Your task to perform on an android device: install app "Google Play Music" Image 0: 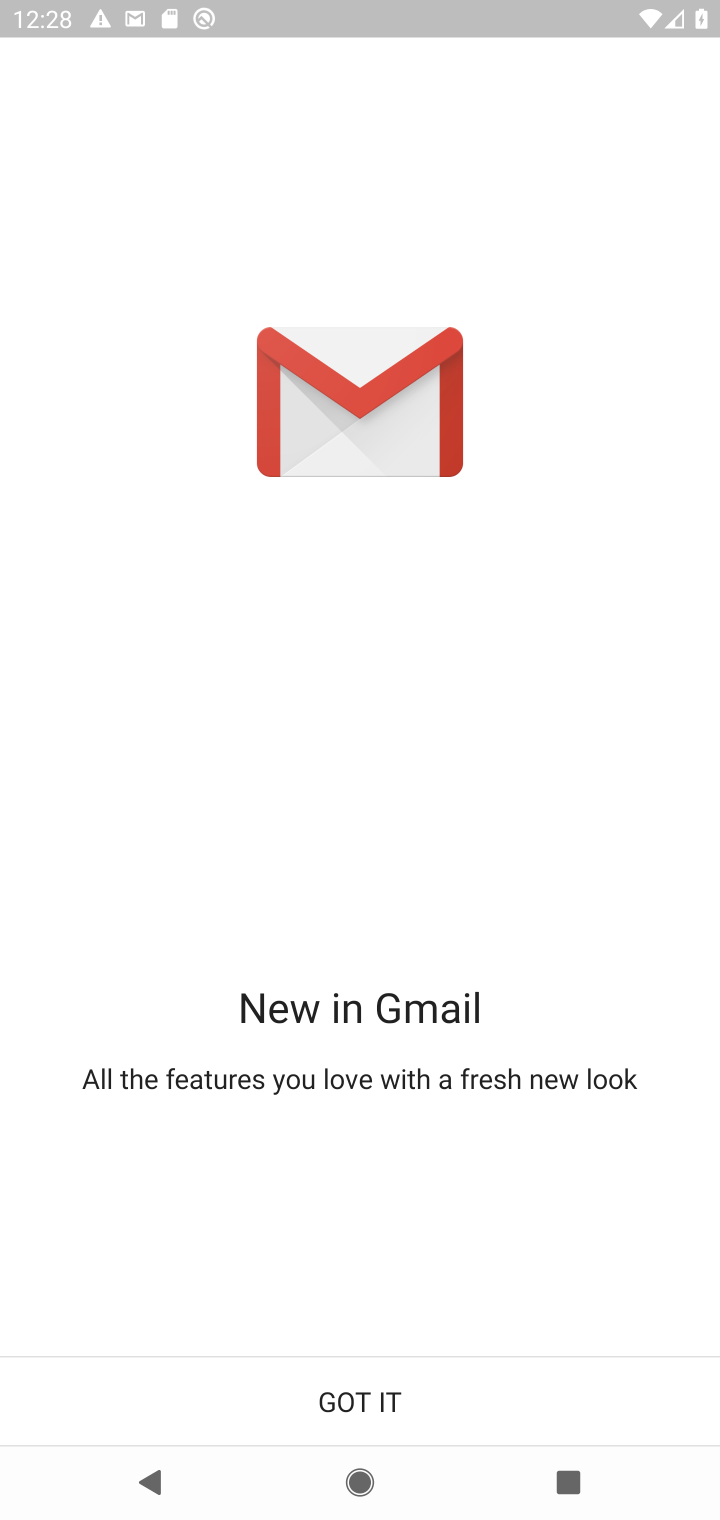
Step 0: press home button
Your task to perform on an android device: install app "Google Play Music" Image 1: 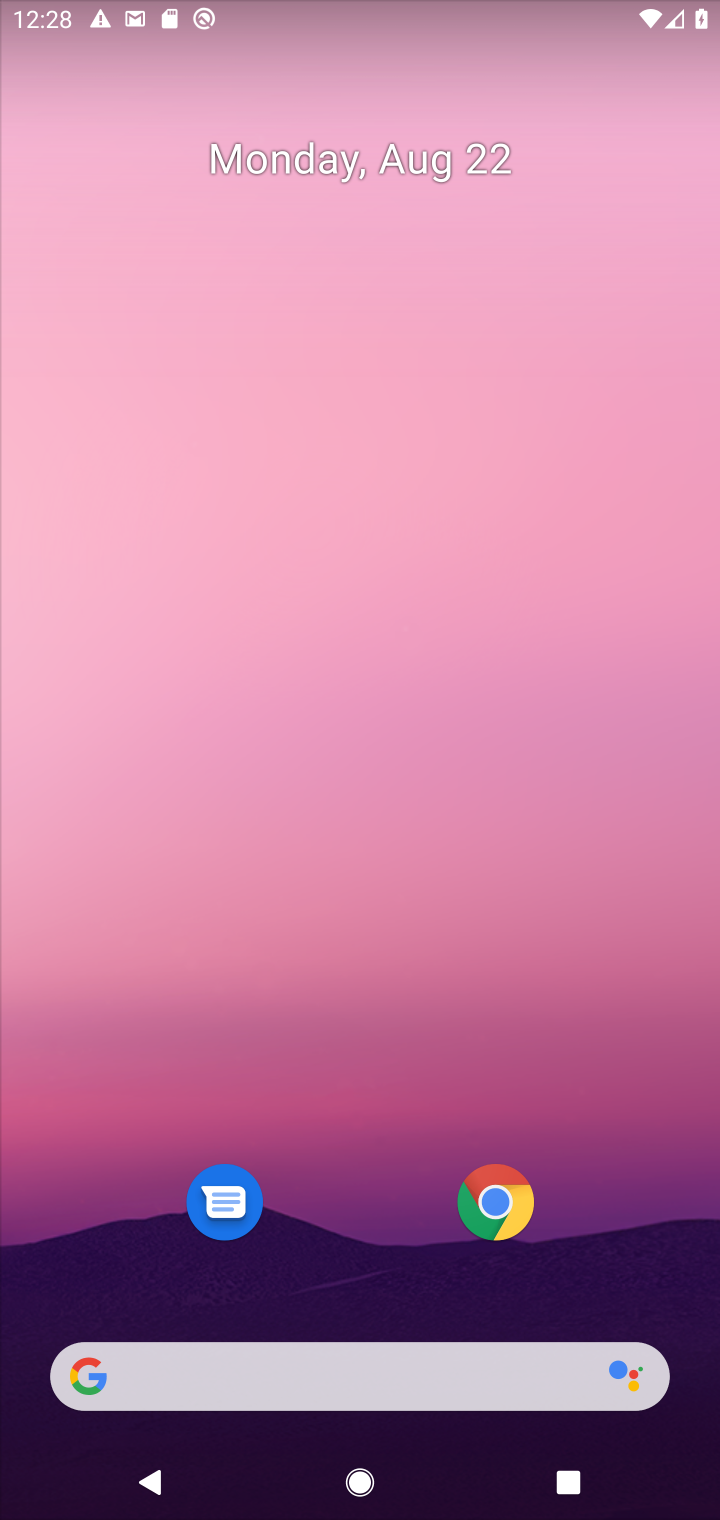
Step 1: drag from (318, 1200) to (318, 185)
Your task to perform on an android device: install app "Google Play Music" Image 2: 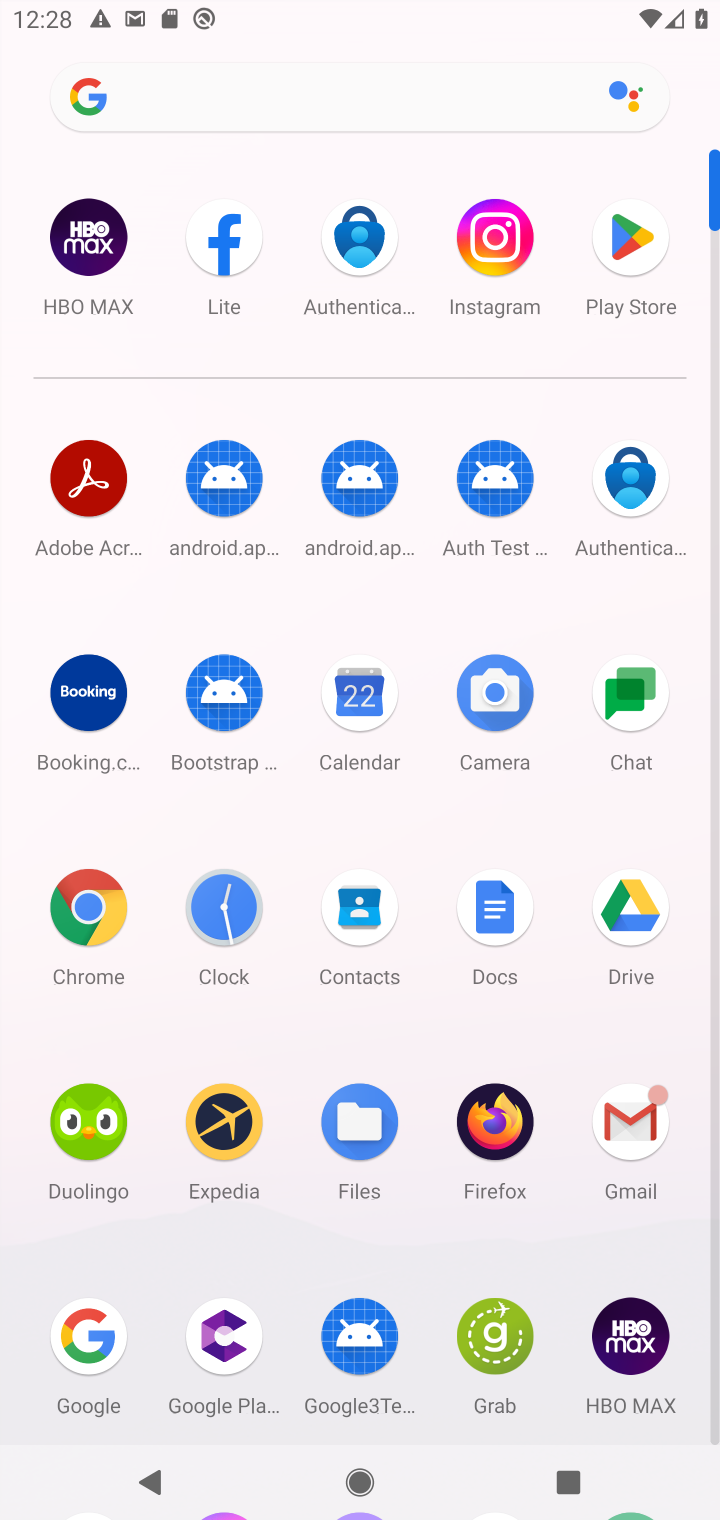
Step 2: click (630, 239)
Your task to perform on an android device: install app "Google Play Music" Image 3: 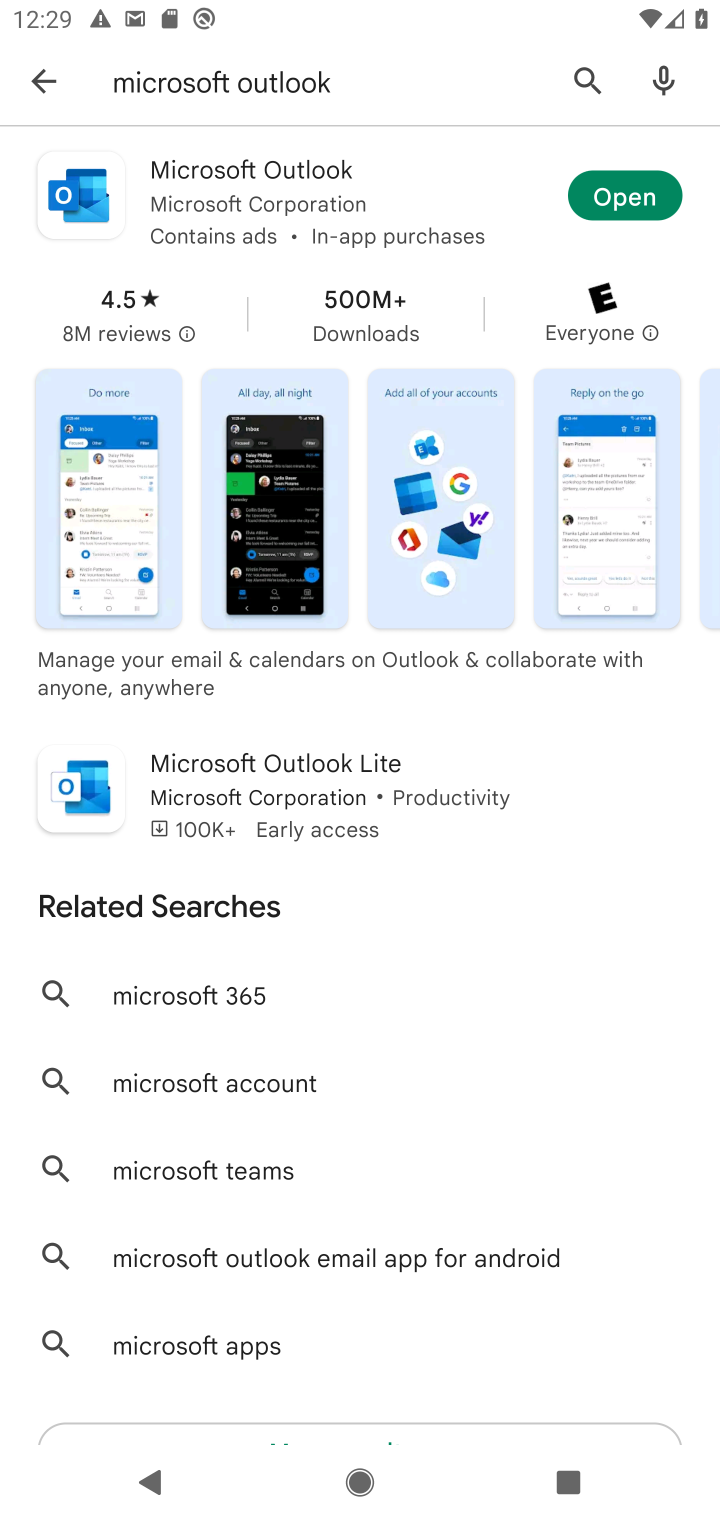
Step 3: click (581, 83)
Your task to perform on an android device: install app "Google Play Music" Image 4: 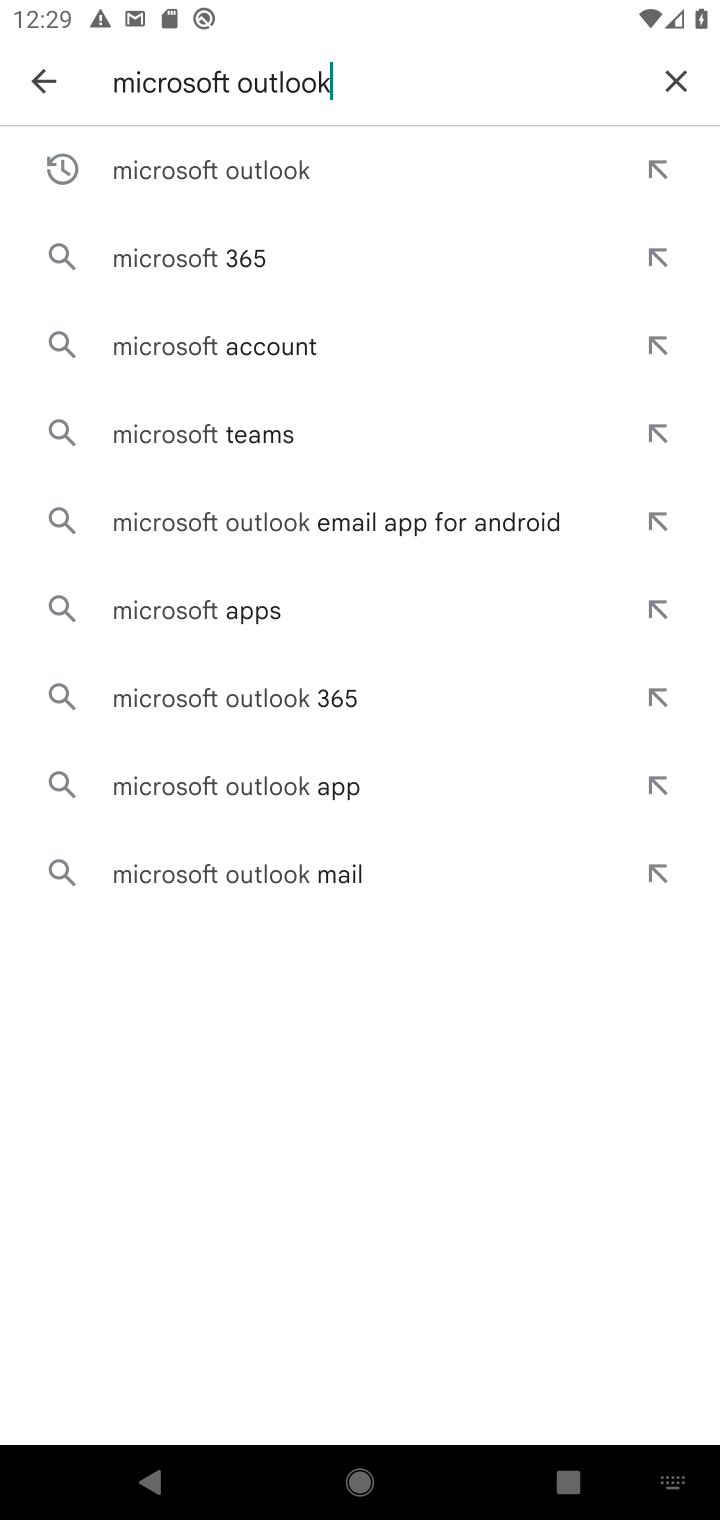
Step 4: click (676, 77)
Your task to perform on an android device: install app "Google Play Music" Image 5: 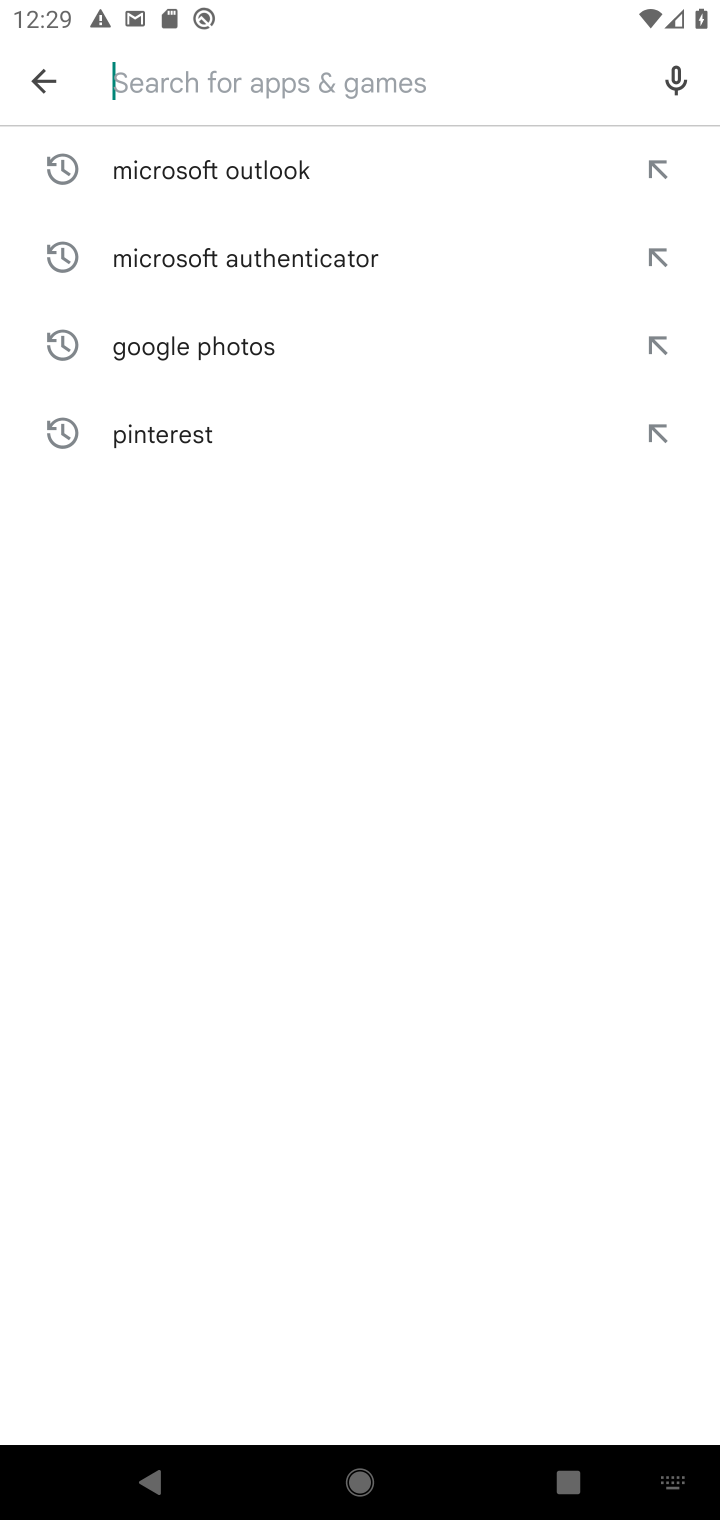
Step 5: type "Google Play Music"
Your task to perform on an android device: install app "Google Play Music" Image 6: 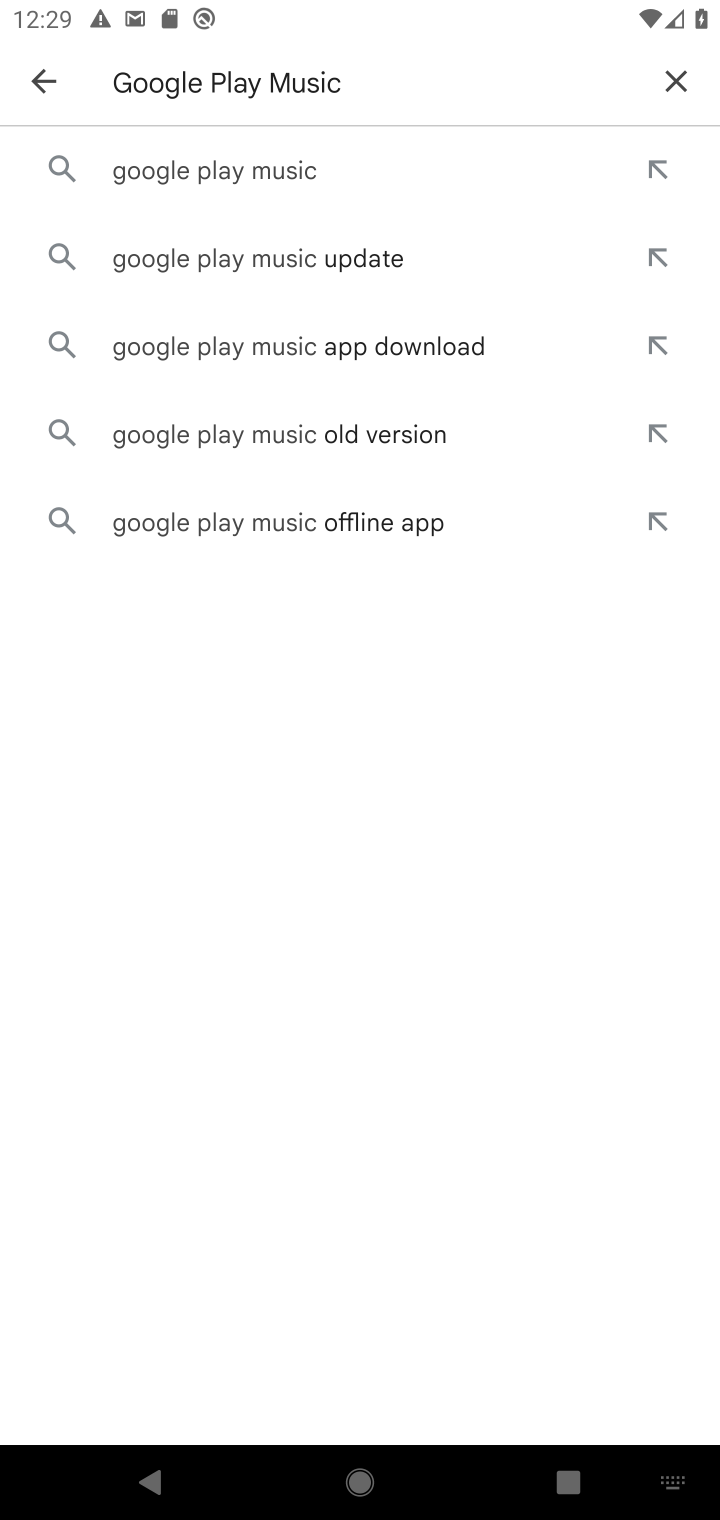
Step 6: click (246, 163)
Your task to perform on an android device: install app "Google Play Music" Image 7: 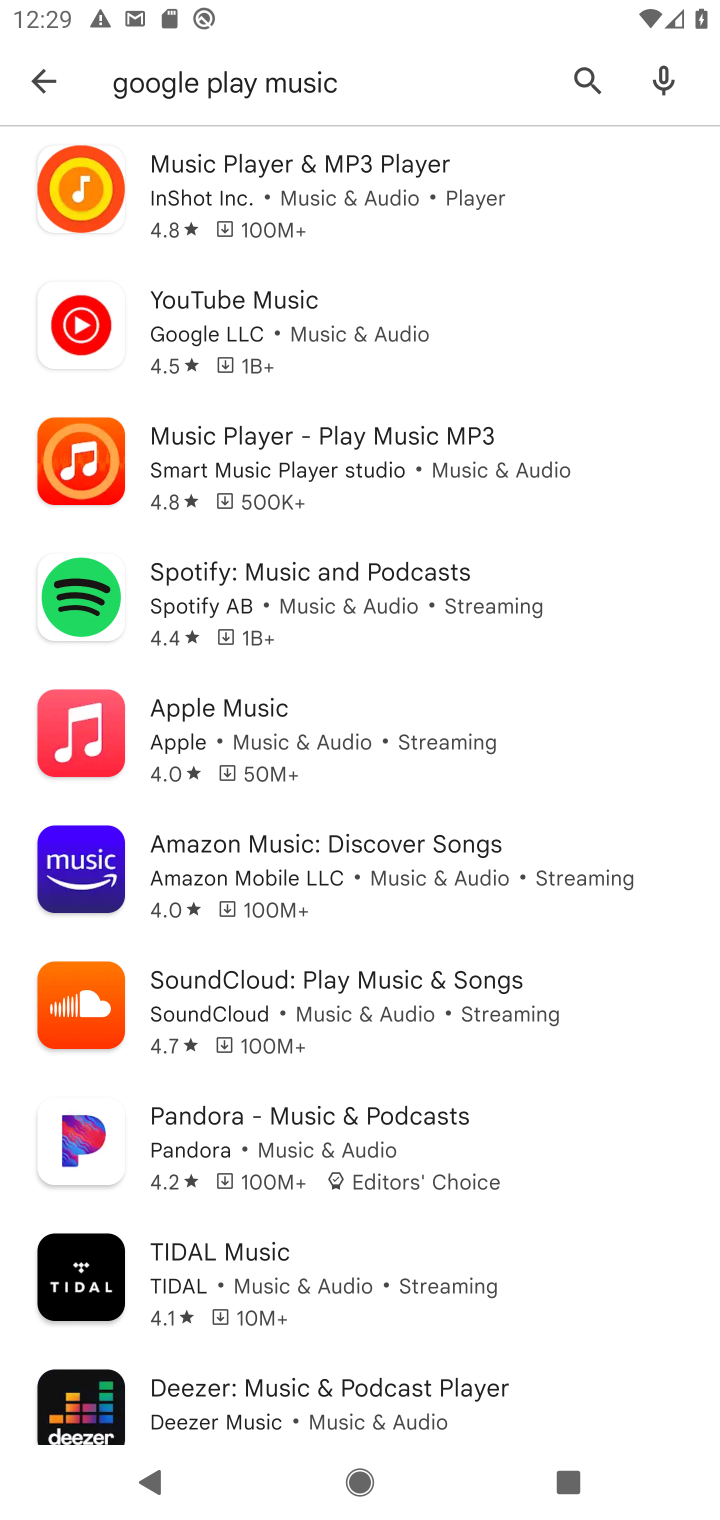
Step 7: task complete